Your task to perform on an android device: change the clock style Image 0: 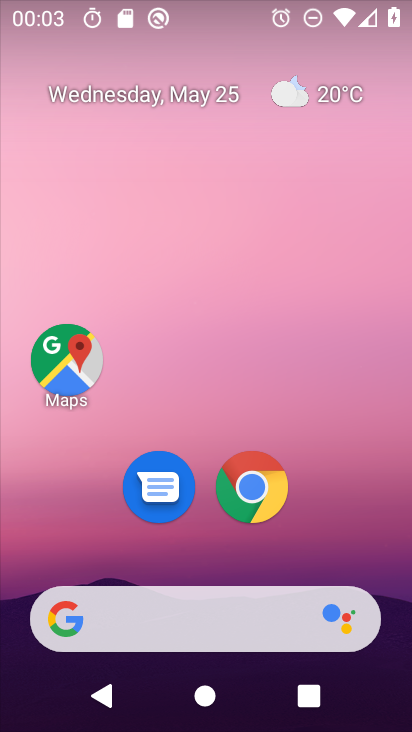
Step 0: drag from (366, 564) to (320, 731)
Your task to perform on an android device: change the clock style Image 1: 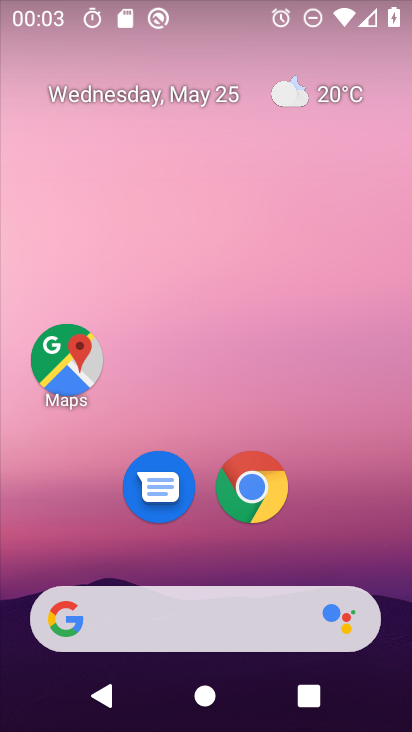
Step 1: drag from (371, 577) to (409, 24)
Your task to perform on an android device: change the clock style Image 2: 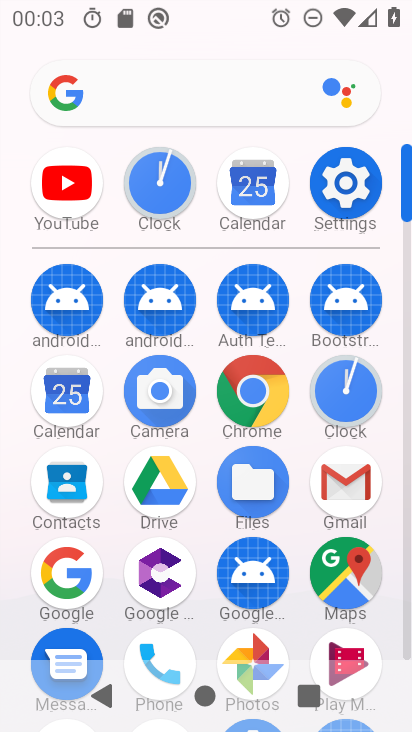
Step 2: click (156, 187)
Your task to perform on an android device: change the clock style Image 3: 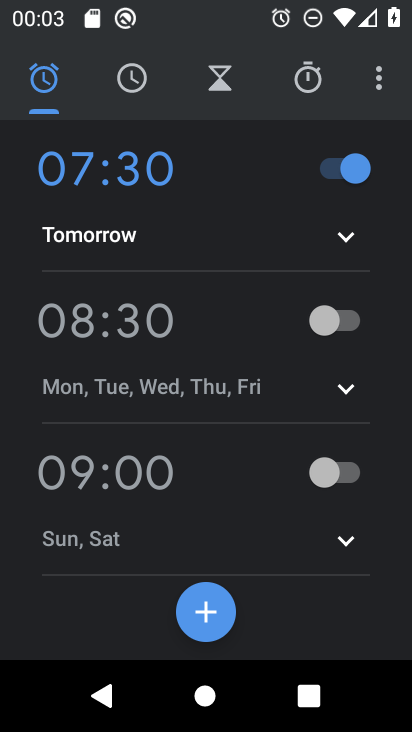
Step 3: click (385, 82)
Your task to perform on an android device: change the clock style Image 4: 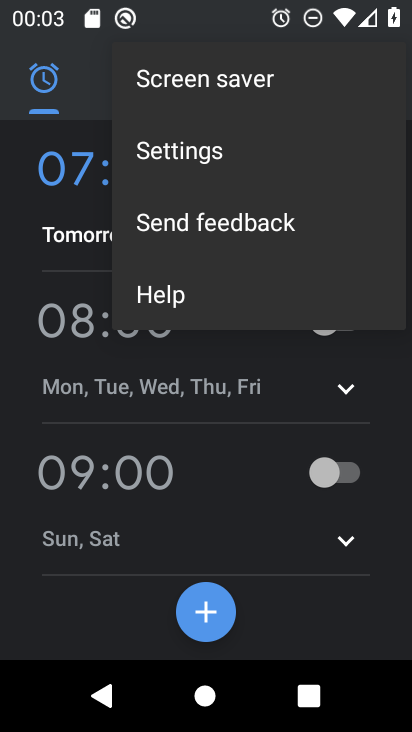
Step 4: click (144, 160)
Your task to perform on an android device: change the clock style Image 5: 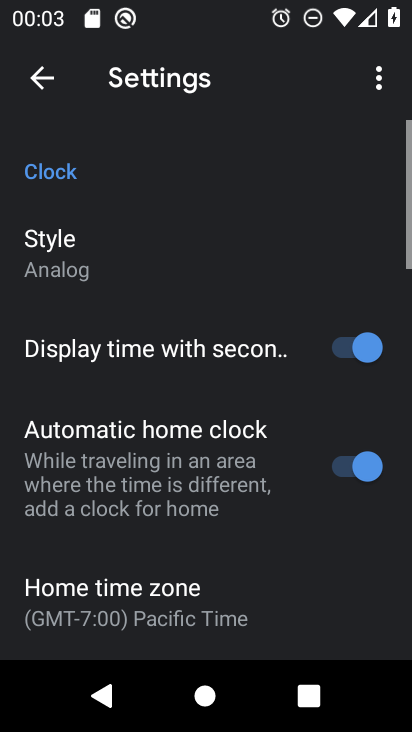
Step 5: click (83, 269)
Your task to perform on an android device: change the clock style Image 6: 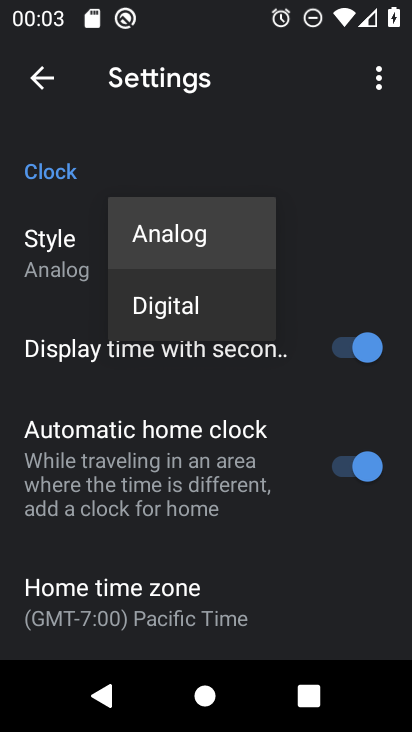
Step 6: click (151, 313)
Your task to perform on an android device: change the clock style Image 7: 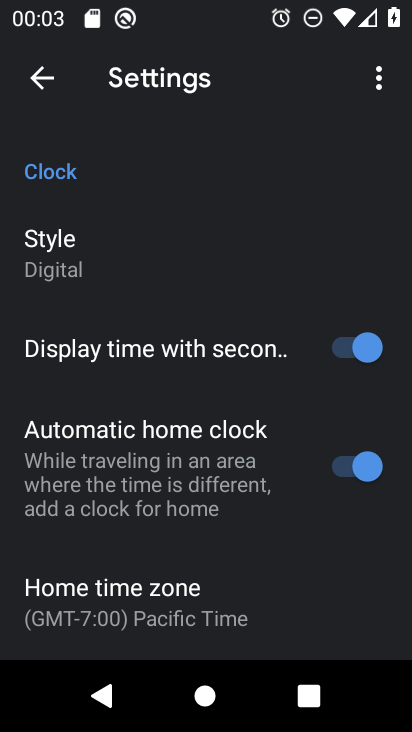
Step 7: task complete